Your task to perform on an android device: open sync settings in chrome Image 0: 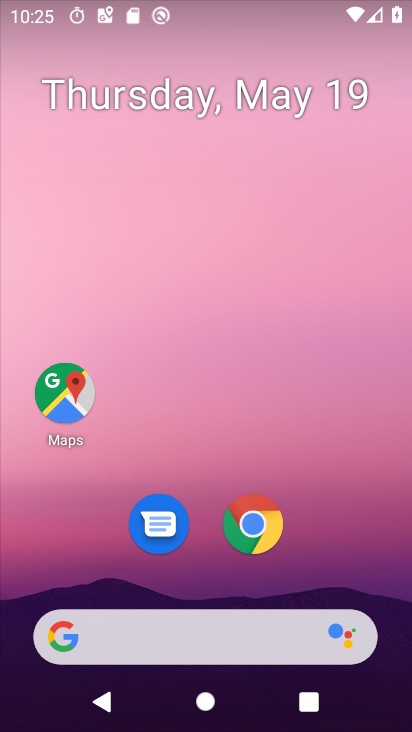
Step 0: click (257, 522)
Your task to perform on an android device: open sync settings in chrome Image 1: 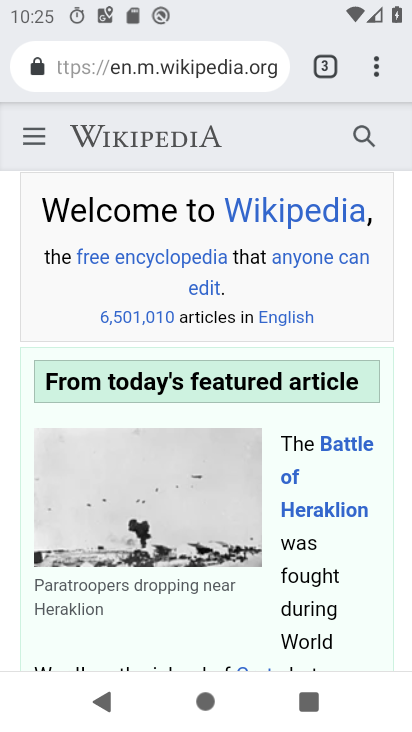
Step 1: click (374, 58)
Your task to perform on an android device: open sync settings in chrome Image 2: 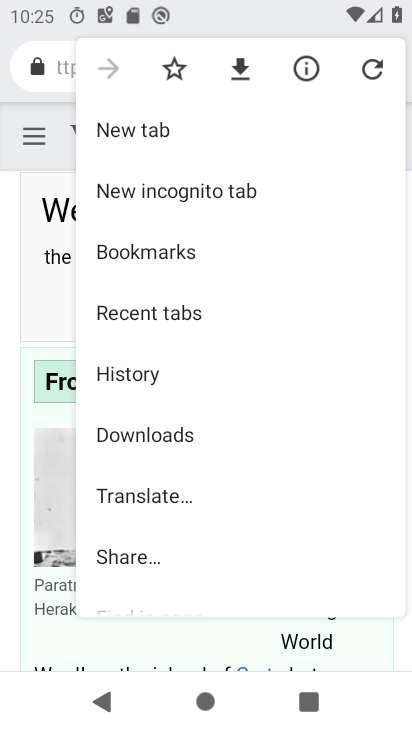
Step 2: drag from (217, 448) to (272, 201)
Your task to perform on an android device: open sync settings in chrome Image 3: 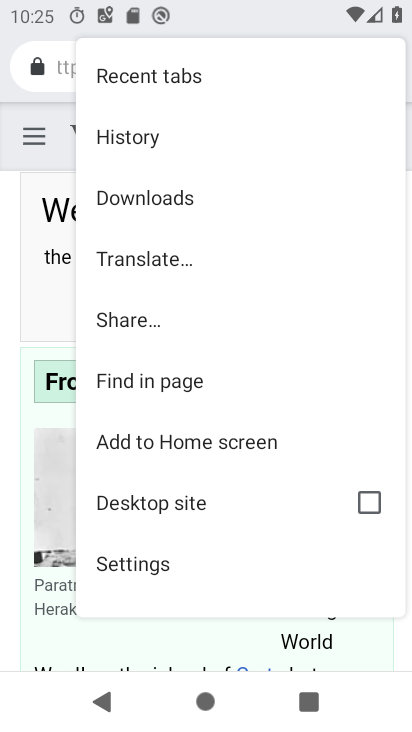
Step 3: click (181, 562)
Your task to perform on an android device: open sync settings in chrome Image 4: 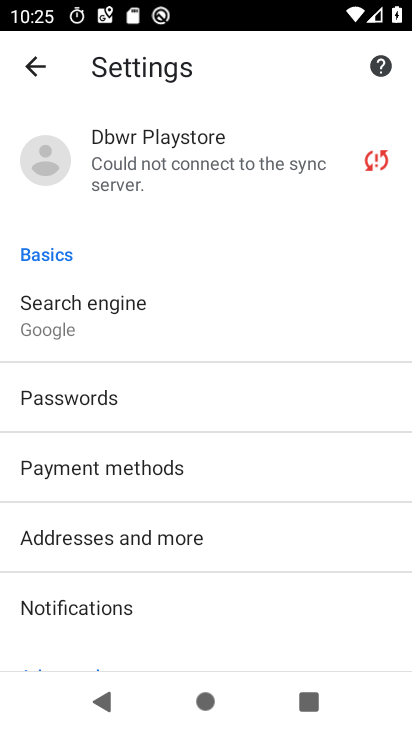
Step 4: click (222, 154)
Your task to perform on an android device: open sync settings in chrome Image 5: 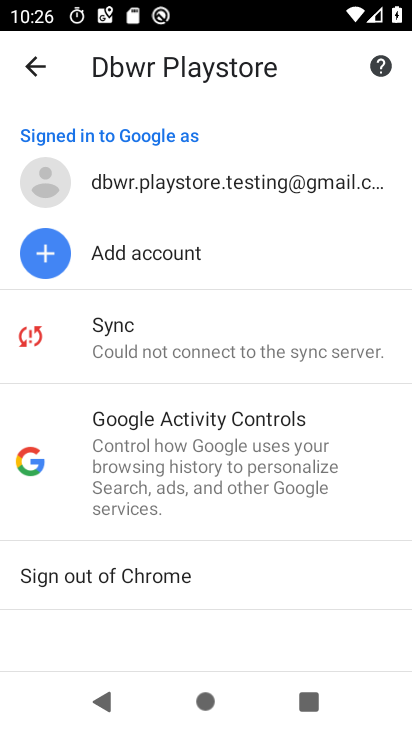
Step 5: click (204, 335)
Your task to perform on an android device: open sync settings in chrome Image 6: 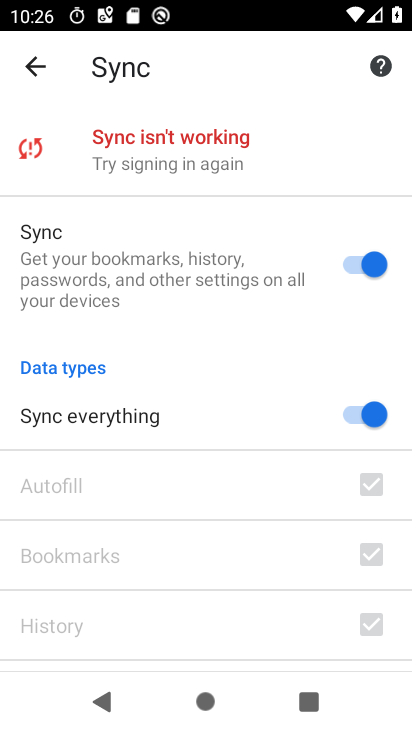
Step 6: task complete